Your task to perform on an android device: allow notifications from all sites in the chrome app Image 0: 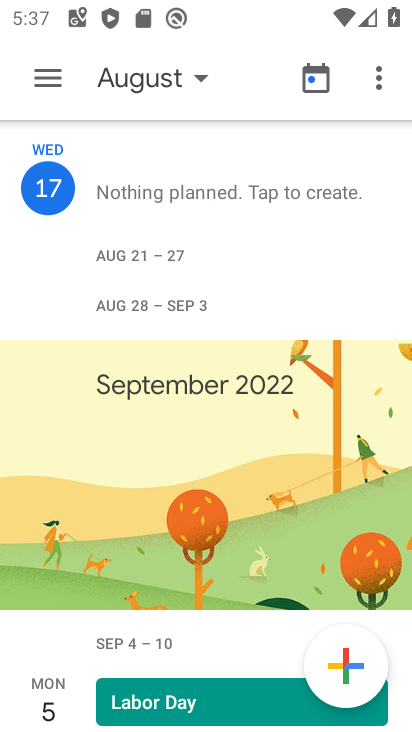
Step 0: press home button
Your task to perform on an android device: allow notifications from all sites in the chrome app Image 1: 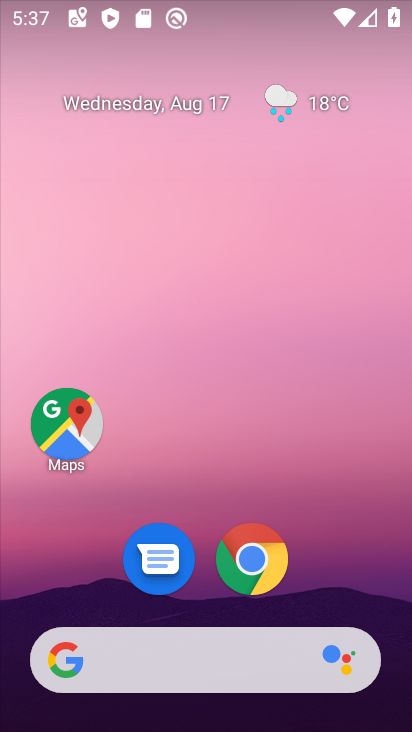
Step 1: drag from (169, 632) to (209, 31)
Your task to perform on an android device: allow notifications from all sites in the chrome app Image 2: 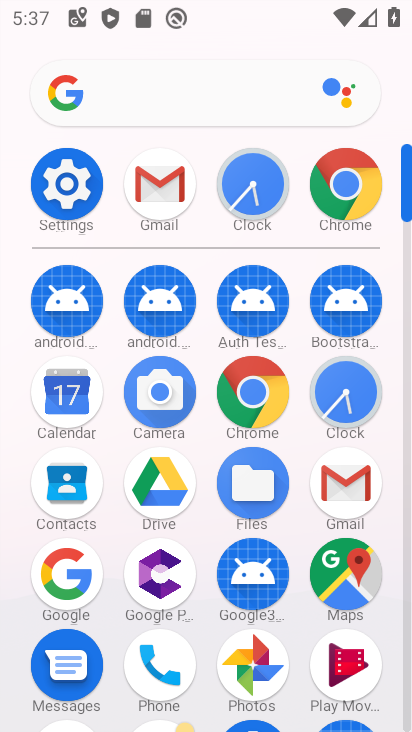
Step 2: click (340, 196)
Your task to perform on an android device: allow notifications from all sites in the chrome app Image 3: 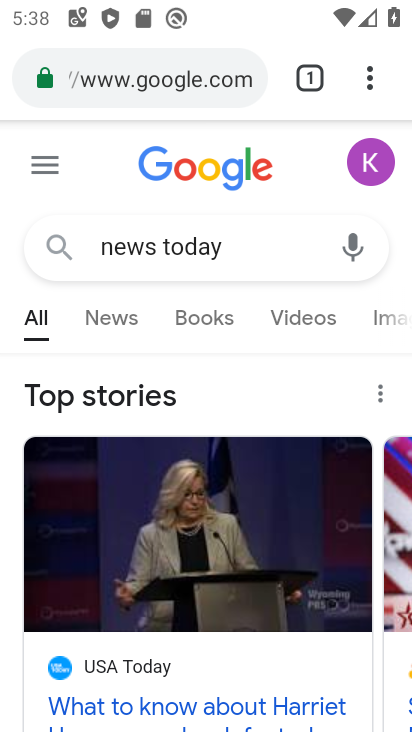
Step 3: drag from (364, 77) to (151, 608)
Your task to perform on an android device: allow notifications from all sites in the chrome app Image 4: 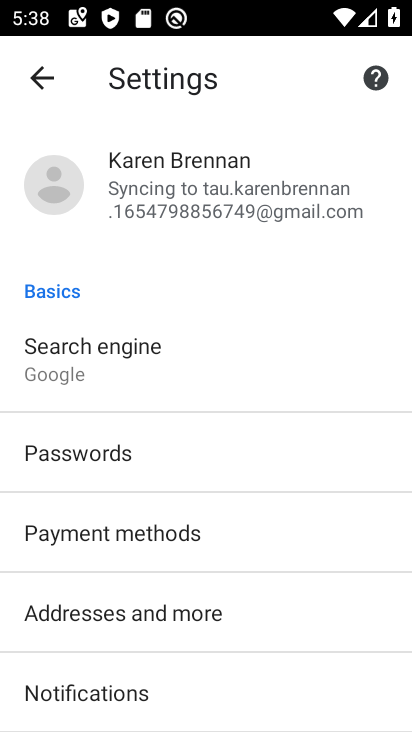
Step 4: drag from (152, 637) to (127, 41)
Your task to perform on an android device: allow notifications from all sites in the chrome app Image 5: 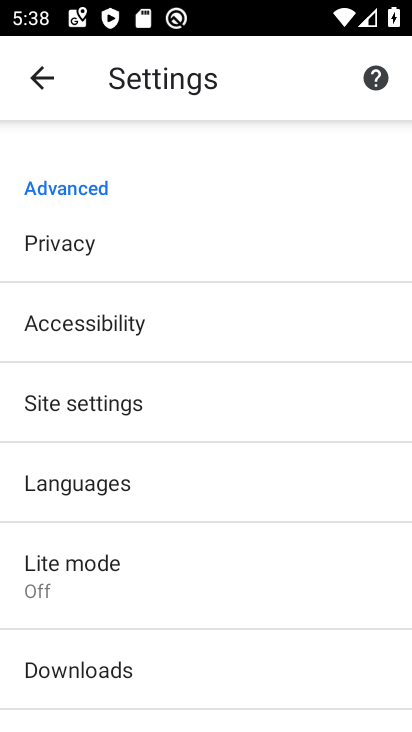
Step 5: click (102, 409)
Your task to perform on an android device: allow notifications from all sites in the chrome app Image 6: 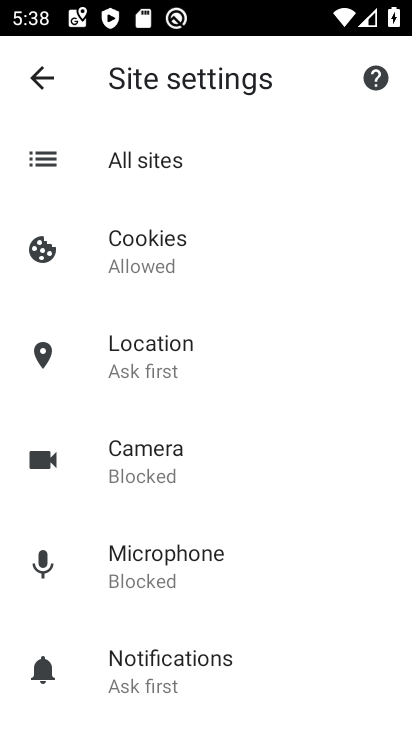
Step 6: click (180, 658)
Your task to perform on an android device: allow notifications from all sites in the chrome app Image 7: 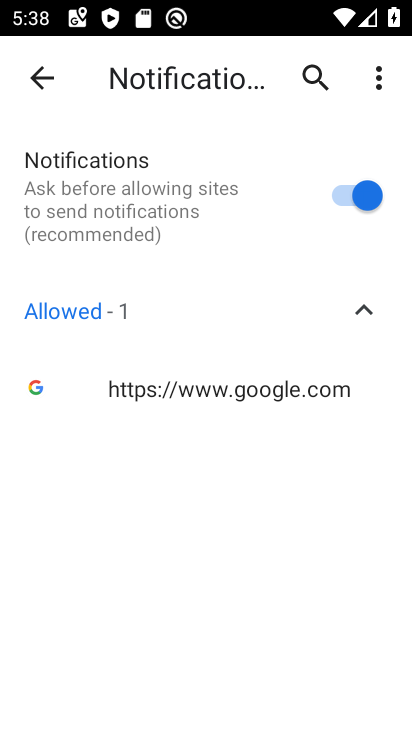
Step 7: task complete